Your task to perform on an android device: open device folders in google photos Image 0: 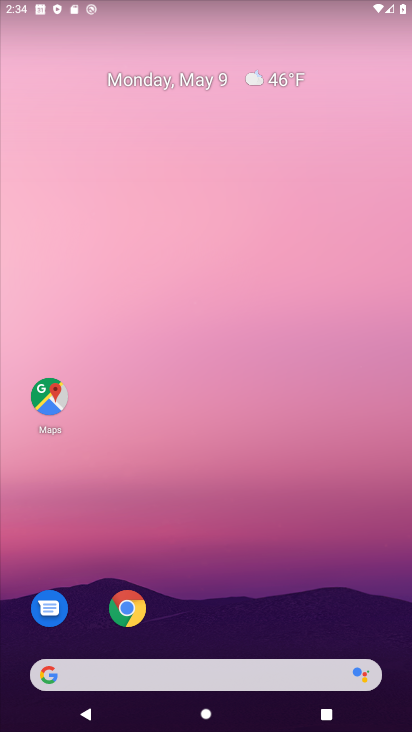
Step 0: drag from (278, 570) to (281, 199)
Your task to perform on an android device: open device folders in google photos Image 1: 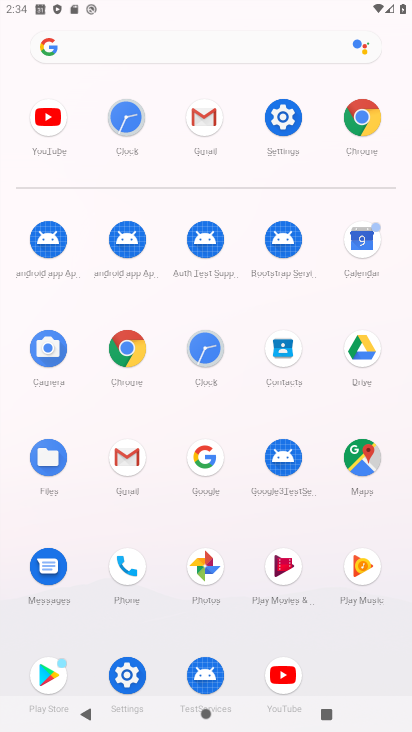
Step 1: click (200, 572)
Your task to perform on an android device: open device folders in google photos Image 2: 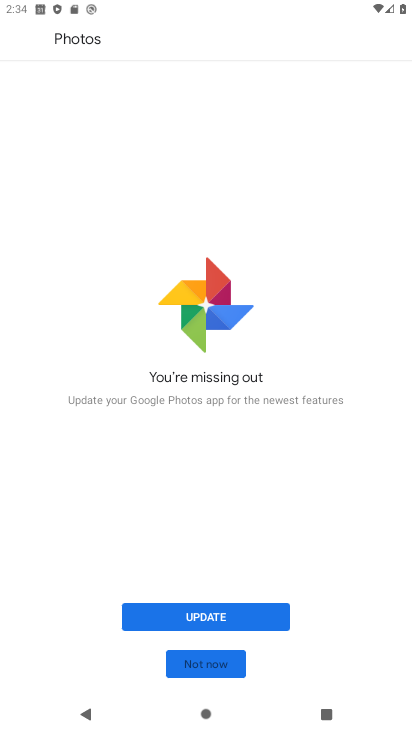
Step 2: click (198, 669)
Your task to perform on an android device: open device folders in google photos Image 3: 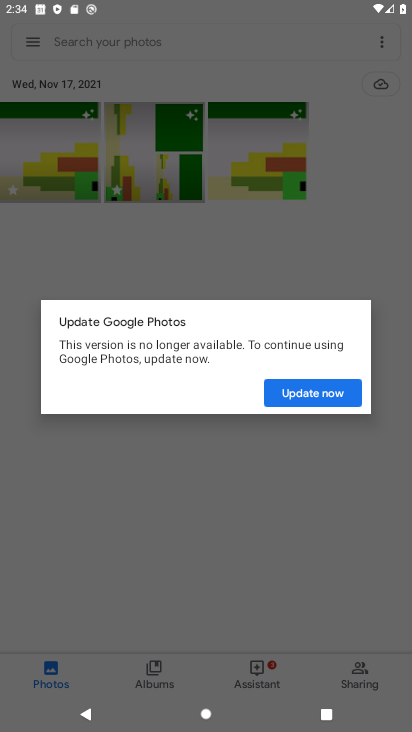
Step 3: click (295, 385)
Your task to perform on an android device: open device folders in google photos Image 4: 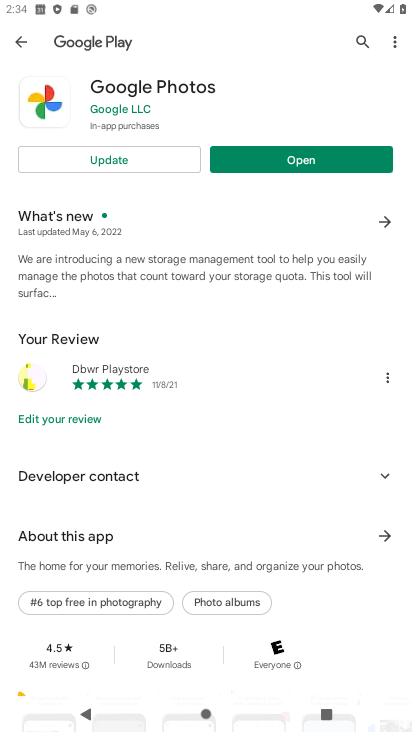
Step 4: click (176, 155)
Your task to perform on an android device: open device folders in google photos Image 5: 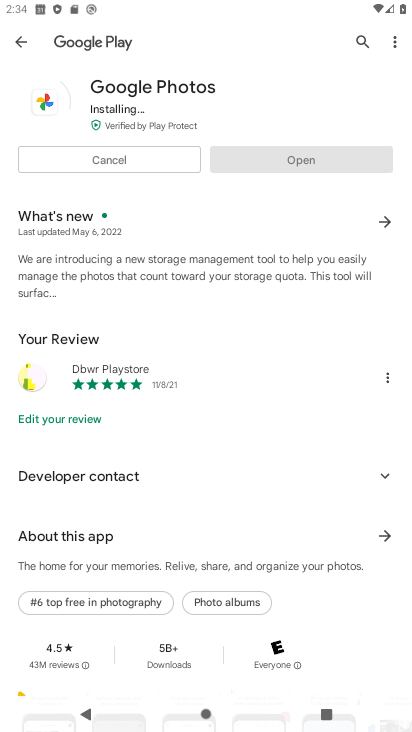
Step 5: click (318, 160)
Your task to perform on an android device: open device folders in google photos Image 6: 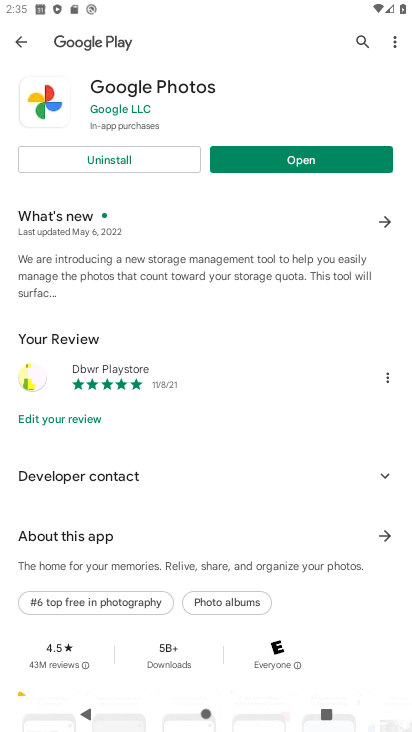
Step 6: click (312, 165)
Your task to perform on an android device: open device folders in google photos Image 7: 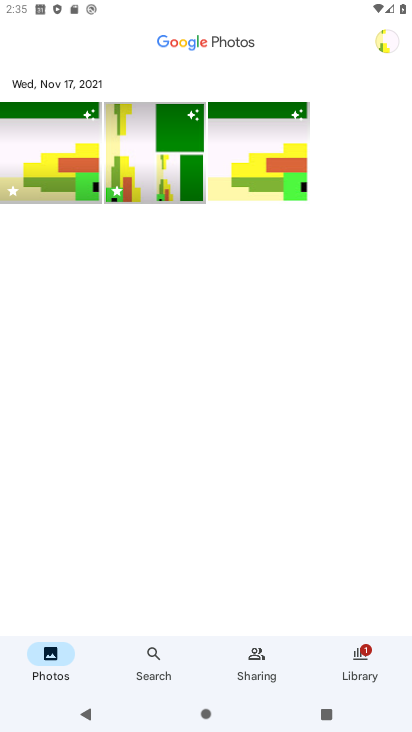
Step 7: click (368, 673)
Your task to perform on an android device: open device folders in google photos Image 8: 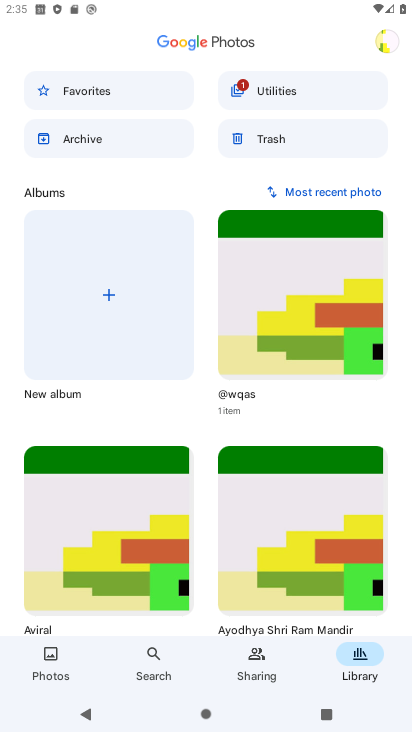
Step 8: click (386, 34)
Your task to perform on an android device: open device folders in google photos Image 9: 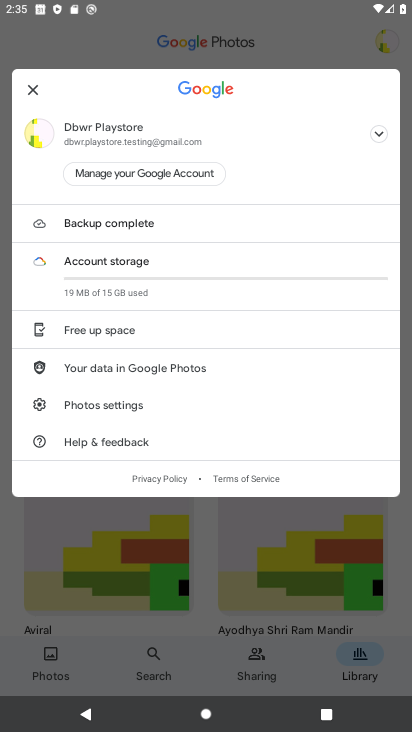
Step 9: click (151, 661)
Your task to perform on an android device: open device folders in google photos Image 10: 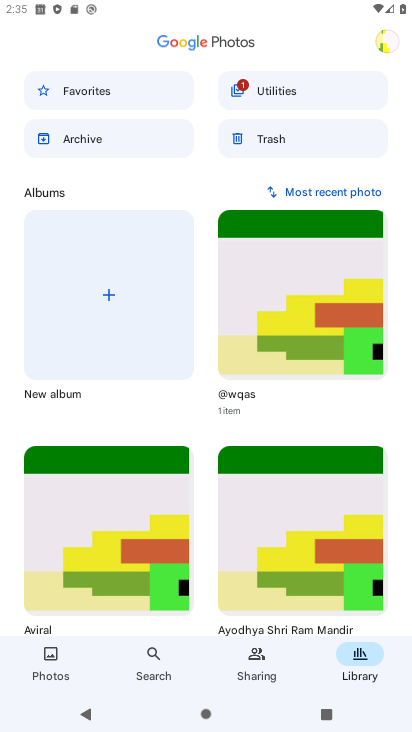
Step 10: click (145, 667)
Your task to perform on an android device: open device folders in google photos Image 11: 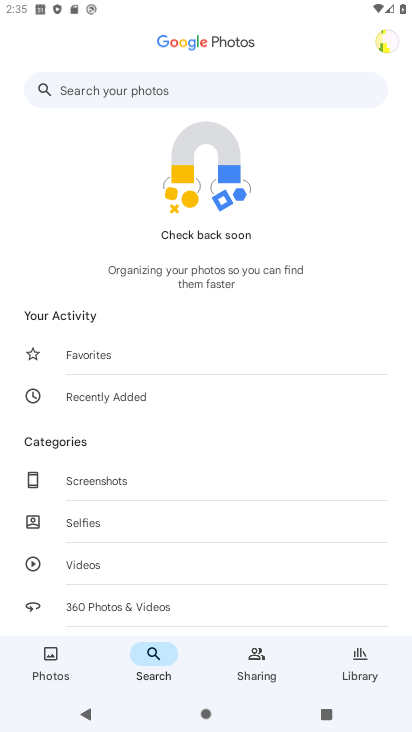
Step 11: click (128, 90)
Your task to perform on an android device: open device folders in google photos Image 12: 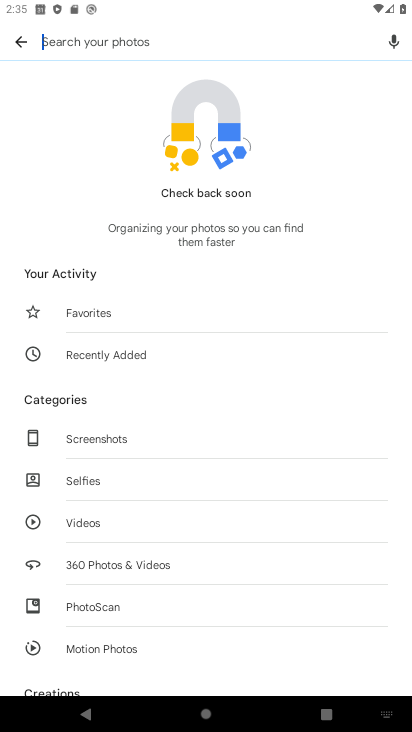
Step 12: type "device folder"
Your task to perform on an android device: open device folders in google photos Image 13: 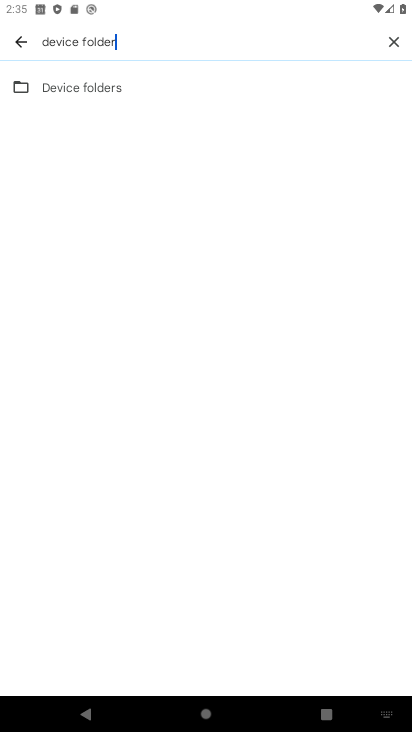
Step 13: click (143, 93)
Your task to perform on an android device: open device folders in google photos Image 14: 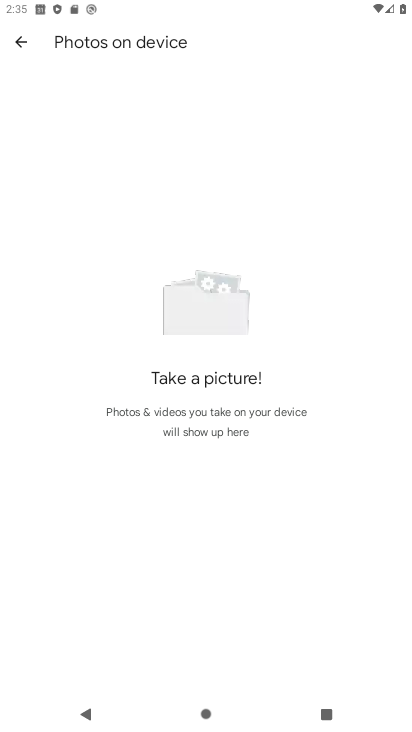
Step 14: task complete